Your task to perform on an android device: Do I have any events this weekend? Image 0: 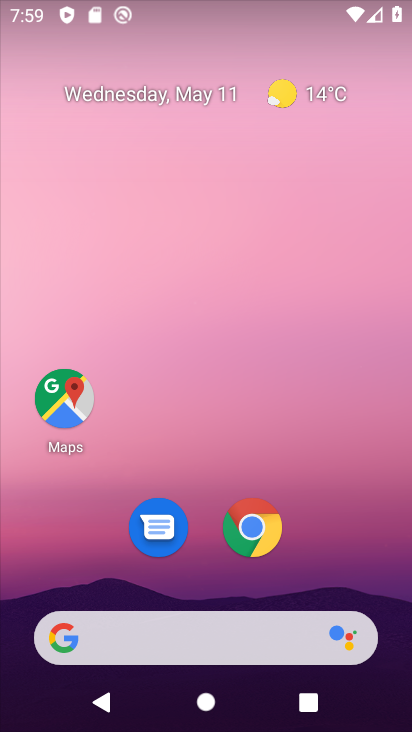
Step 0: click (171, 90)
Your task to perform on an android device: Do I have any events this weekend? Image 1: 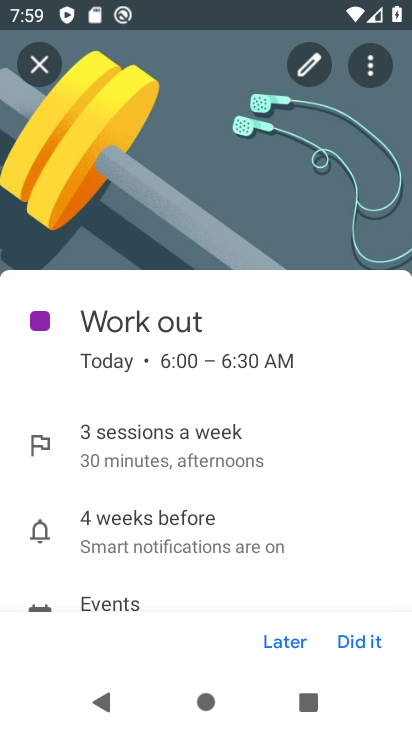
Step 1: click (26, 76)
Your task to perform on an android device: Do I have any events this weekend? Image 2: 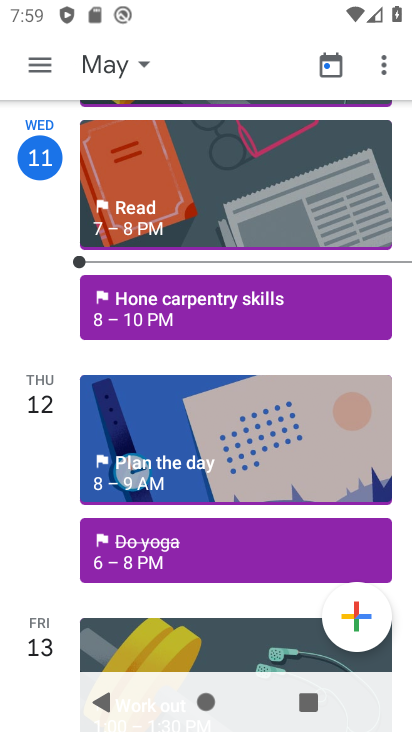
Step 2: click (99, 76)
Your task to perform on an android device: Do I have any events this weekend? Image 3: 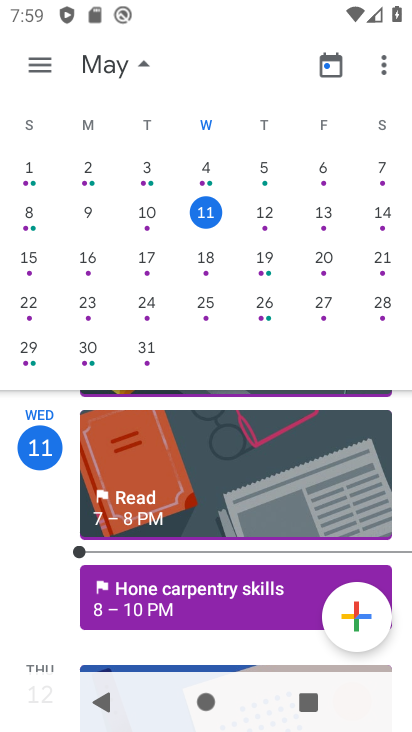
Step 3: click (385, 221)
Your task to perform on an android device: Do I have any events this weekend? Image 4: 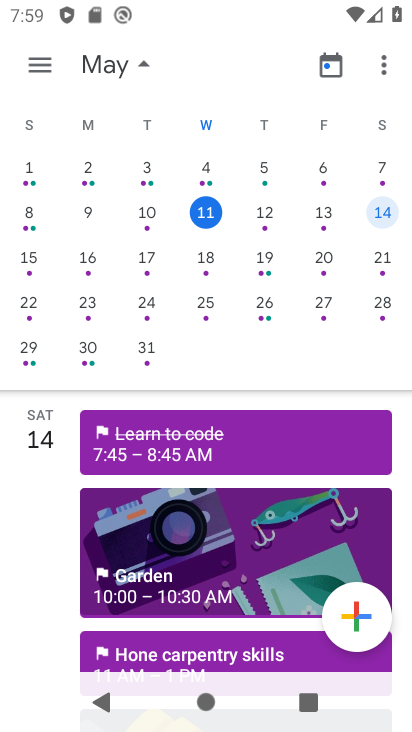
Step 4: task complete